Your task to perform on an android device: Open Chrome and go to settings Image 0: 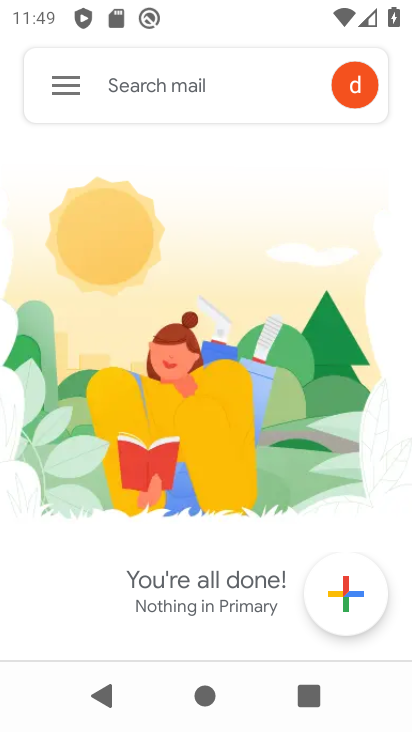
Step 0: press home button
Your task to perform on an android device: Open Chrome and go to settings Image 1: 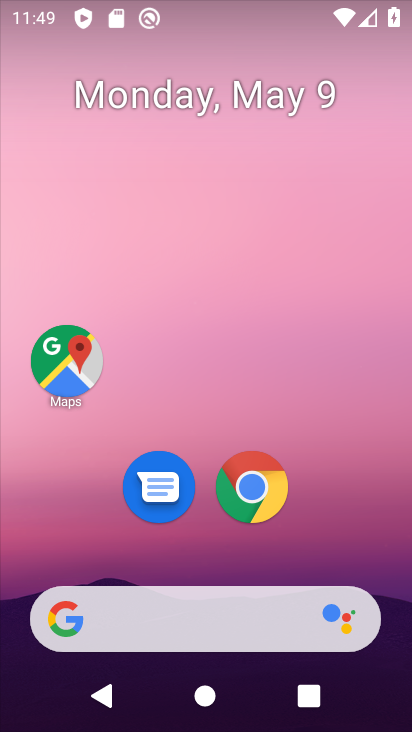
Step 1: click (277, 484)
Your task to perform on an android device: Open Chrome and go to settings Image 2: 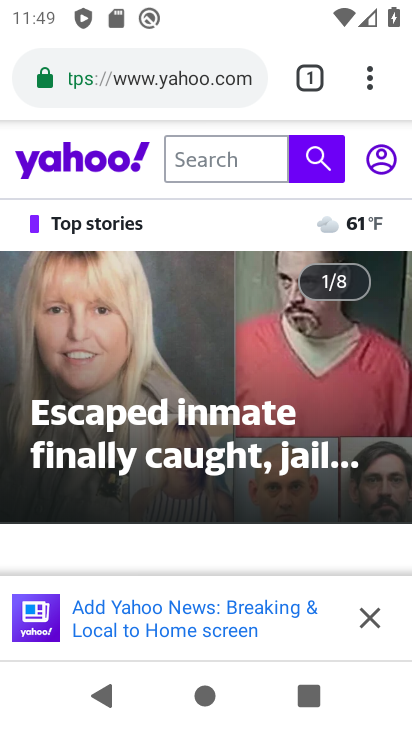
Step 2: click (366, 77)
Your task to perform on an android device: Open Chrome and go to settings Image 3: 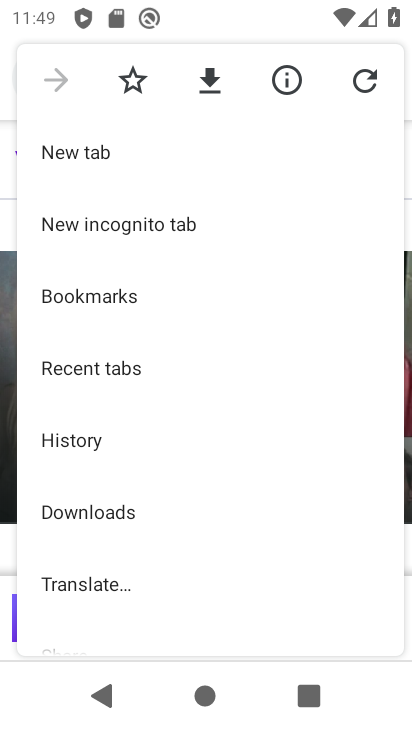
Step 3: drag from (192, 548) to (220, 234)
Your task to perform on an android device: Open Chrome and go to settings Image 4: 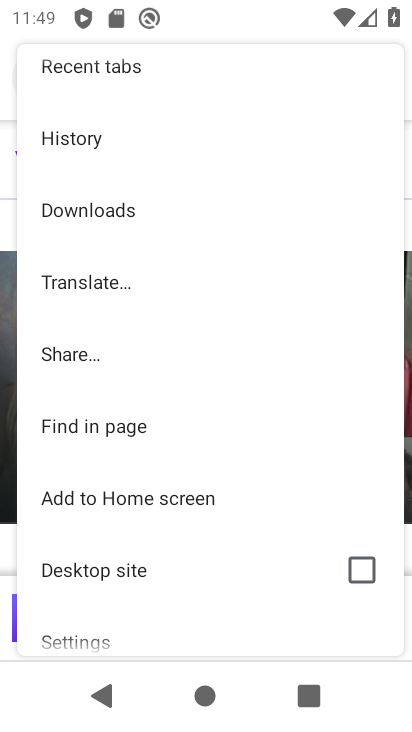
Step 4: click (161, 640)
Your task to perform on an android device: Open Chrome and go to settings Image 5: 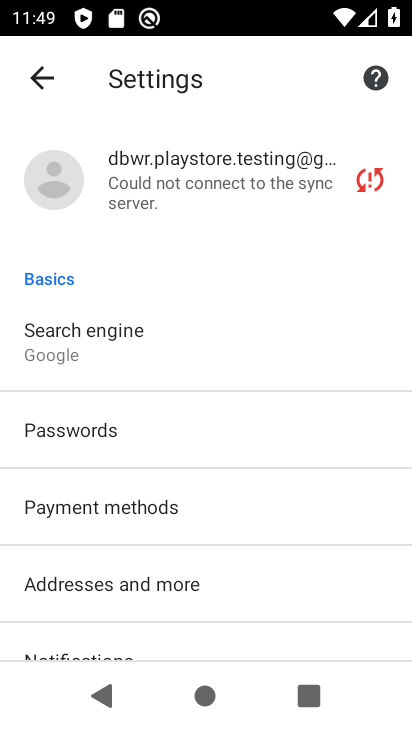
Step 5: task complete